Your task to perform on an android device: What's the weather today? Image 0: 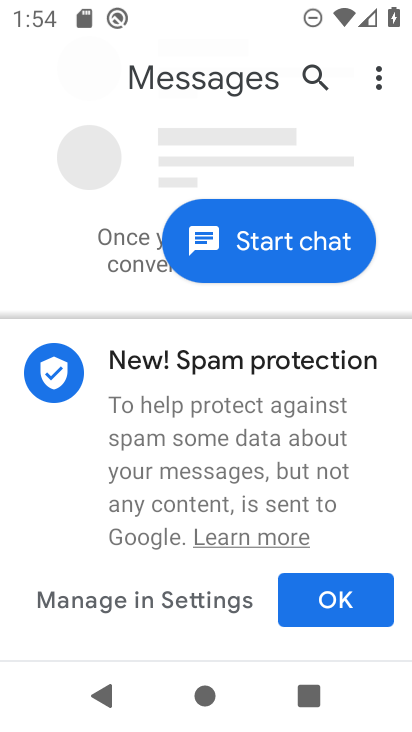
Step 0: click (347, 609)
Your task to perform on an android device: What's the weather today? Image 1: 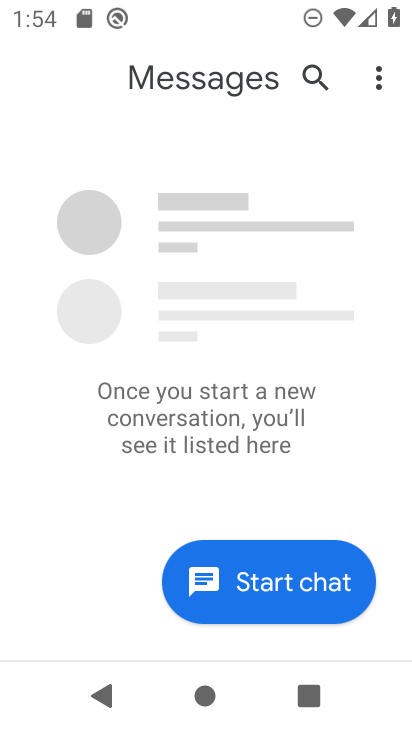
Step 1: press home button
Your task to perform on an android device: What's the weather today? Image 2: 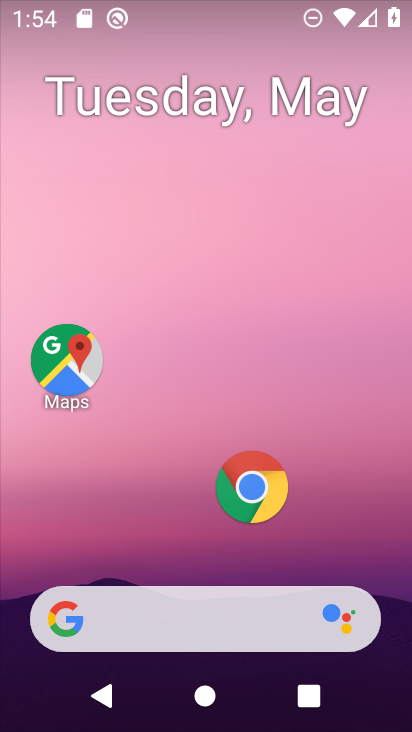
Step 2: drag from (211, 567) to (165, 111)
Your task to perform on an android device: What's the weather today? Image 3: 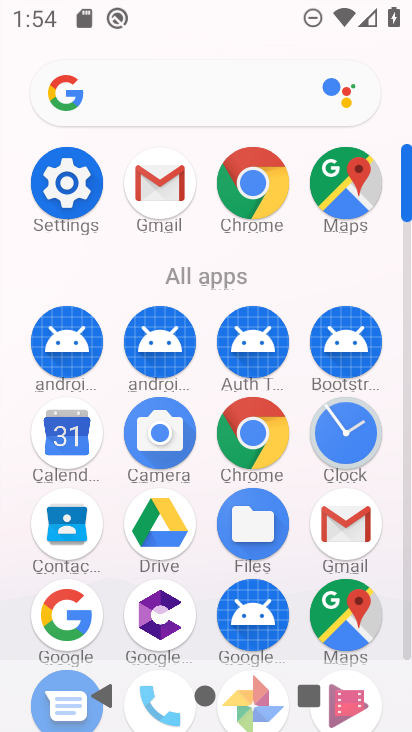
Step 3: click (70, 635)
Your task to perform on an android device: What's the weather today? Image 4: 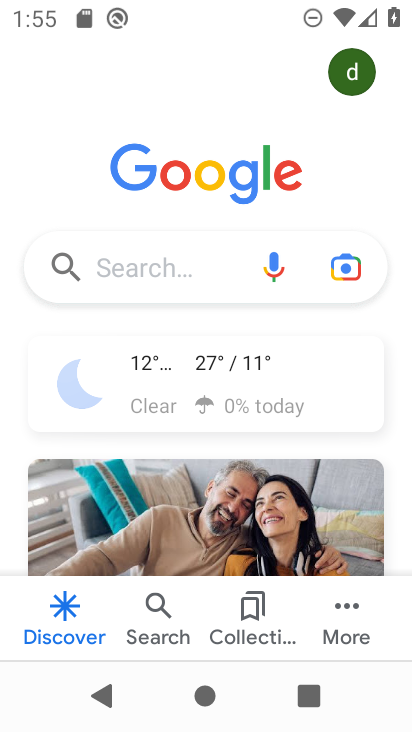
Step 4: click (144, 269)
Your task to perform on an android device: What's the weather today? Image 5: 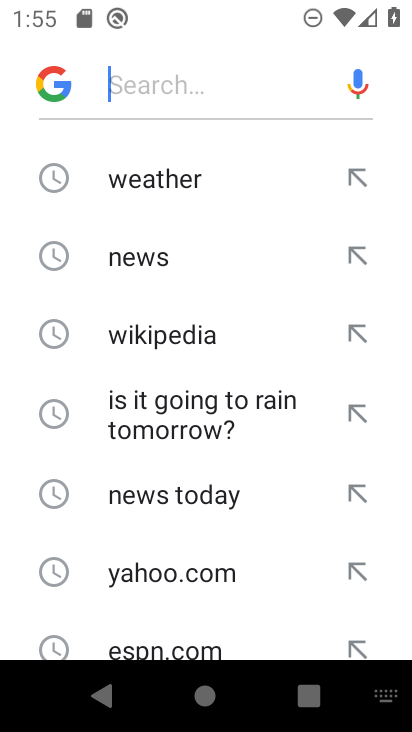
Step 5: click (153, 180)
Your task to perform on an android device: What's the weather today? Image 6: 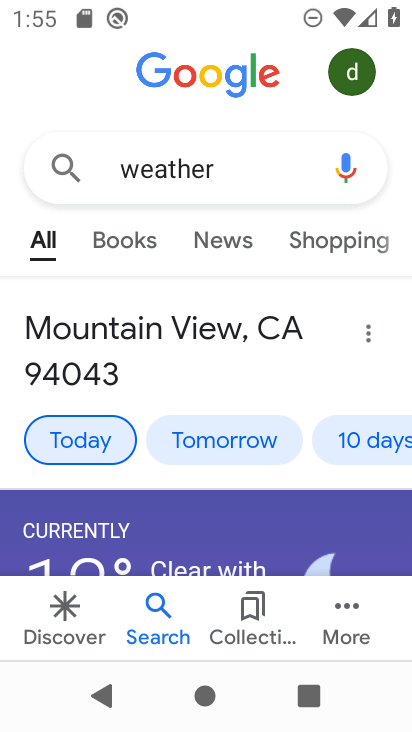
Step 6: click (214, 250)
Your task to perform on an android device: What's the weather today? Image 7: 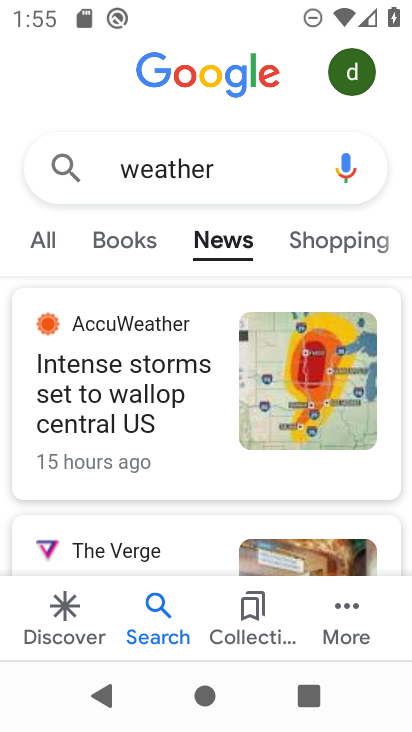
Step 7: task complete